Your task to perform on an android device: Go to sound settings Image 0: 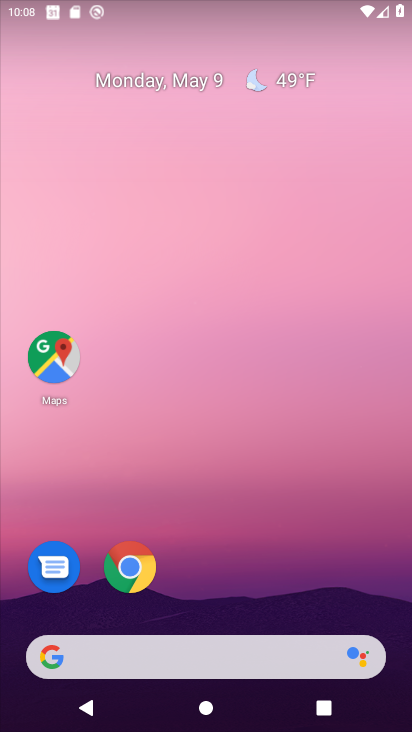
Step 0: drag from (164, 597) to (250, 187)
Your task to perform on an android device: Go to sound settings Image 1: 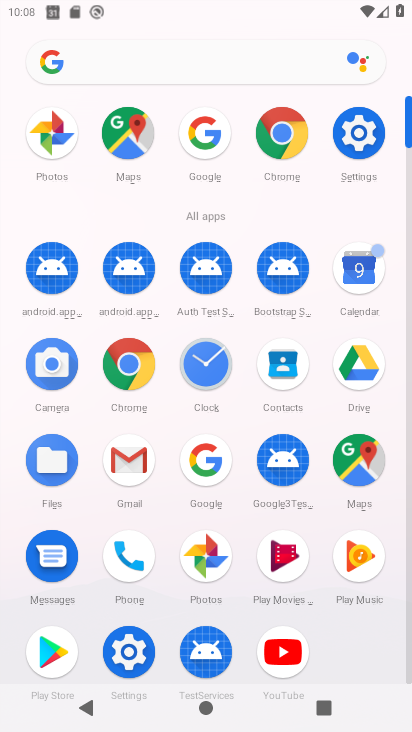
Step 1: click (363, 129)
Your task to perform on an android device: Go to sound settings Image 2: 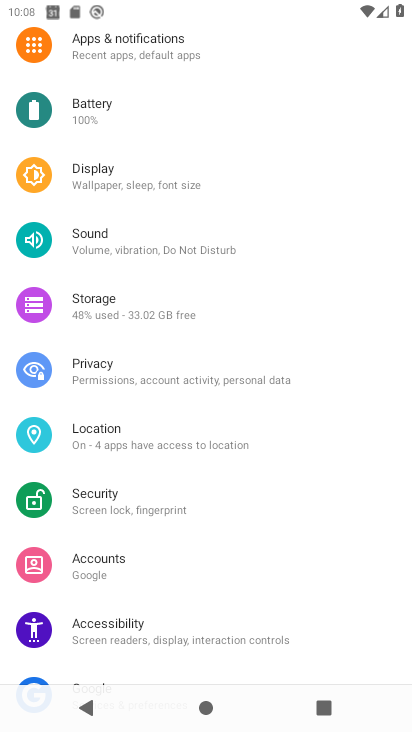
Step 2: click (102, 249)
Your task to perform on an android device: Go to sound settings Image 3: 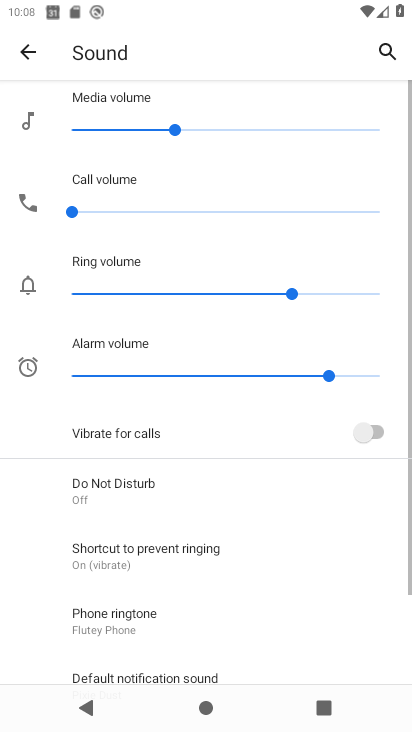
Step 3: task complete